Your task to perform on an android device: Go to Amazon Image 0: 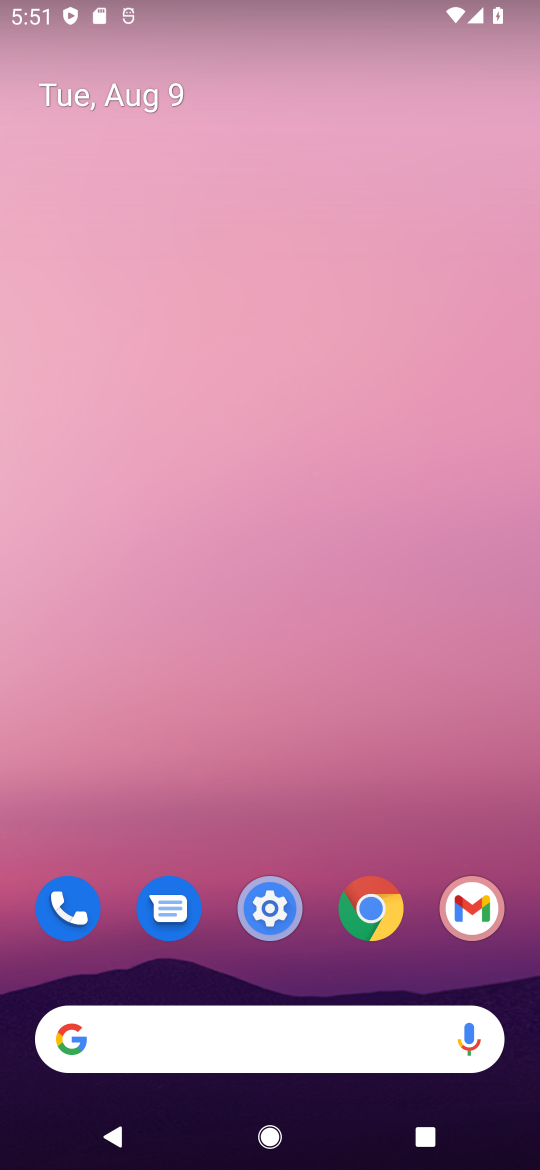
Step 0: click (377, 899)
Your task to perform on an android device: Go to Amazon Image 1: 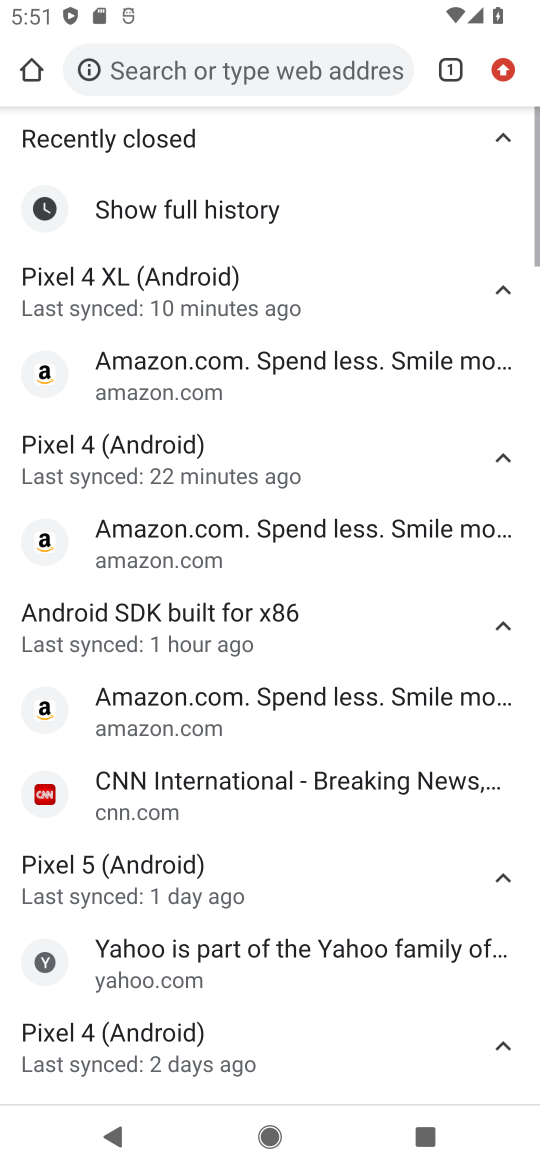
Step 1: click (502, 71)
Your task to perform on an android device: Go to Amazon Image 2: 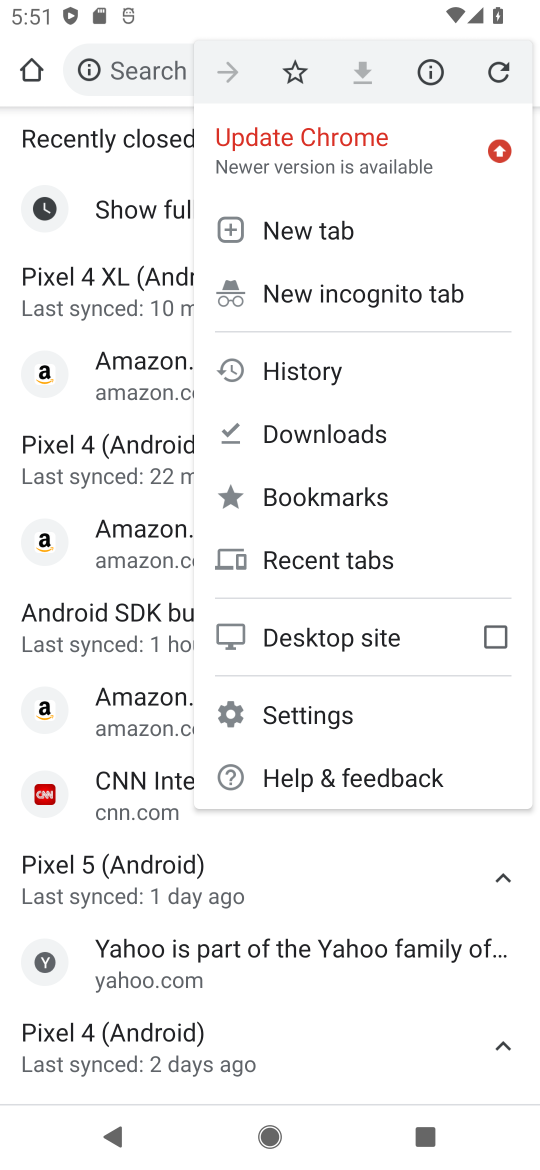
Step 2: click (350, 225)
Your task to perform on an android device: Go to Amazon Image 3: 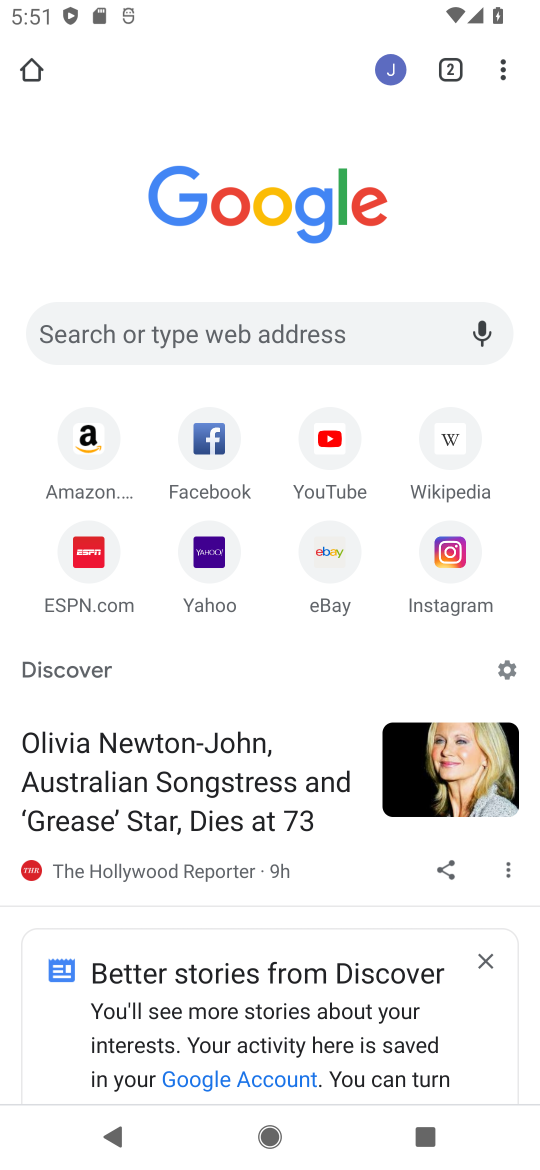
Step 3: click (92, 431)
Your task to perform on an android device: Go to Amazon Image 4: 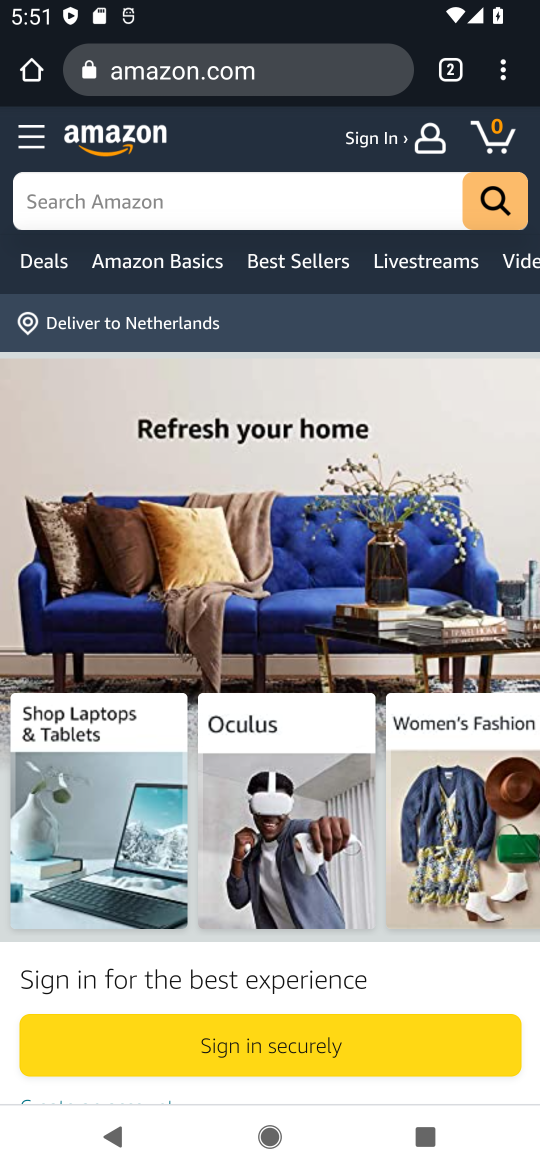
Step 4: task complete